Your task to perform on an android device: move a message to another label in the gmail app Image 0: 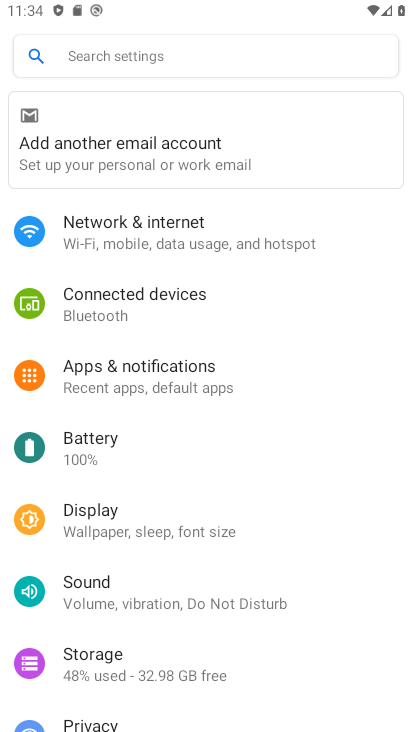
Step 0: press home button
Your task to perform on an android device: move a message to another label in the gmail app Image 1: 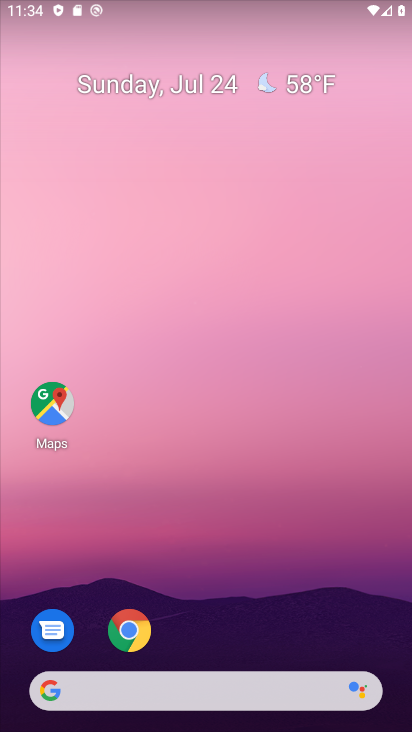
Step 1: drag from (230, 655) to (211, 93)
Your task to perform on an android device: move a message to another label in the gmail app Image 2: 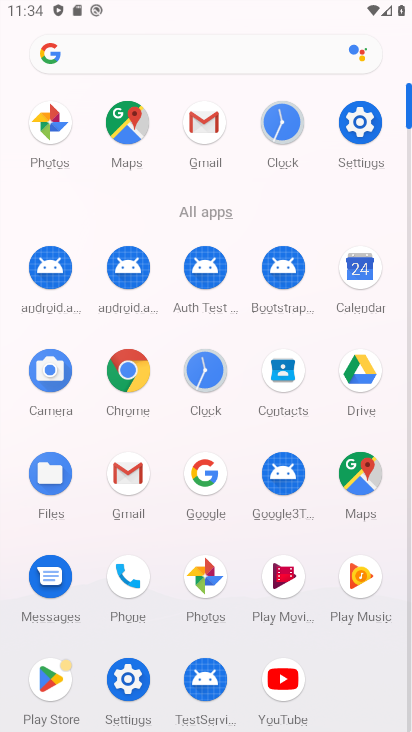
Step 2: click (200, 128)
Your task to perform on an android device: move a message to another label in the gmail app Image 3: 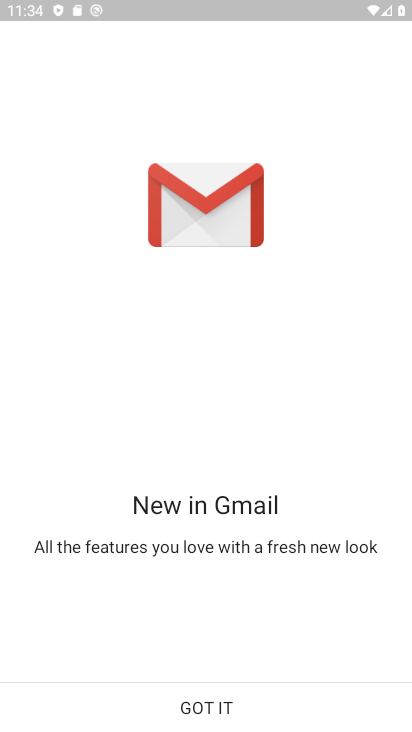
Step 3: click (204, 716)
Your task to perform on an android device: move a message to another label in the gmail app Image 4: 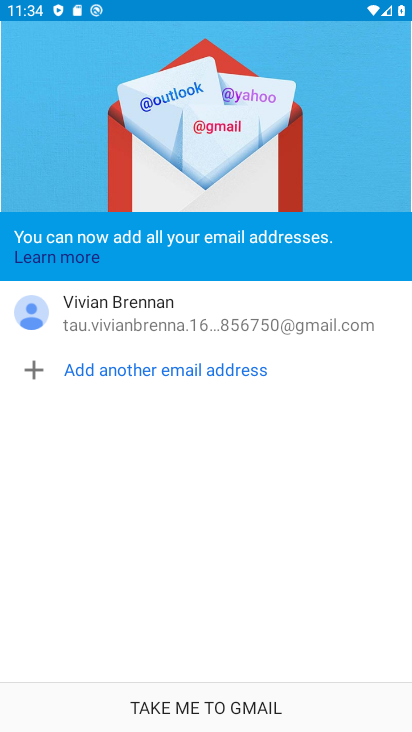
Step 4: click (212, 713)
Your task to perform on an android device: move a message to another label in the gmail app Image 5: 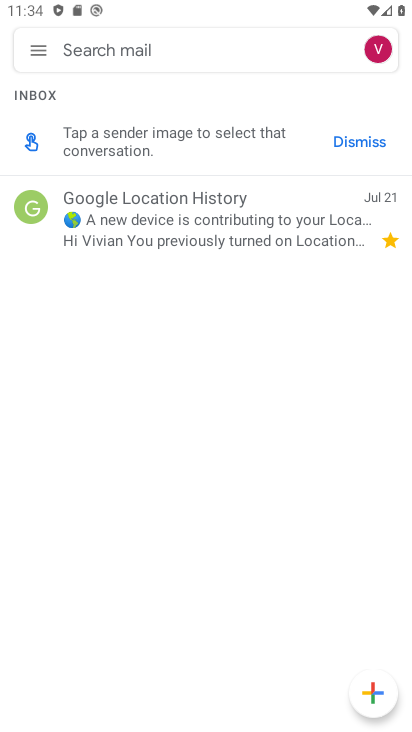
Step 5: click (180, 207)
Your task to perform on an android device: move a message to another label in the gmail app Image 6: 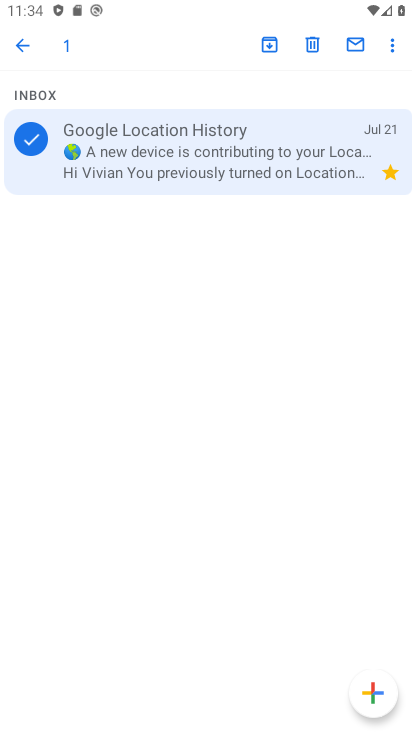
Step 6: click (388, 58)
Your task to perform on an android device: move a message to another label in the gmail app Image 7: 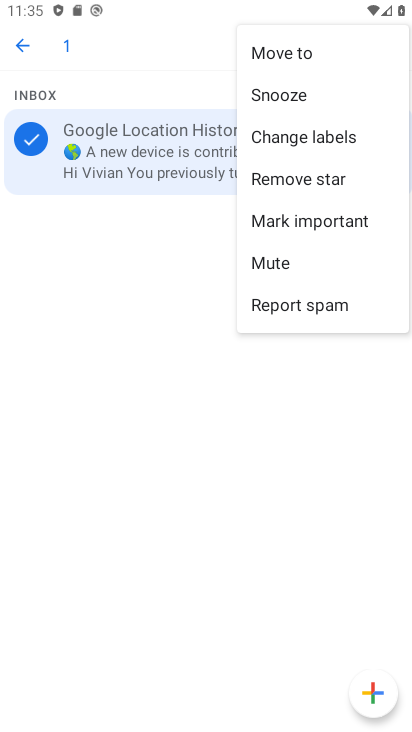
Step 7: click (322, 52)
Your task to perform on an android device: move a message to another label in the gmail app Image 8: 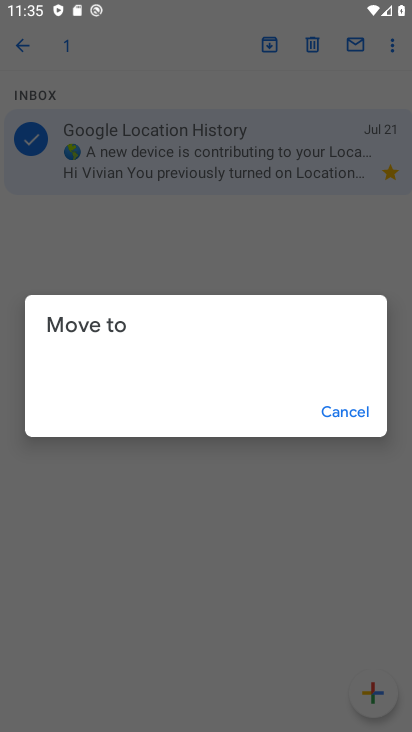
Step 8: task complete